Your task to perform on an android device: Open Google Chrome and open the bookmarks view Image 0: 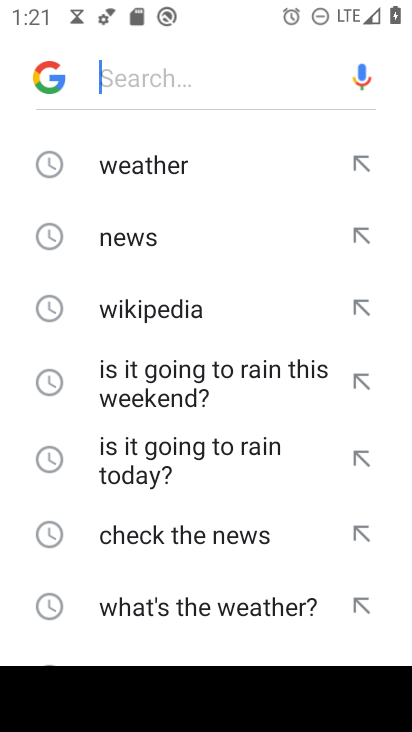
Step 0: press home button
Your task to perform on an android device: Open Google Chrome and open the bookmarks view Image 1: 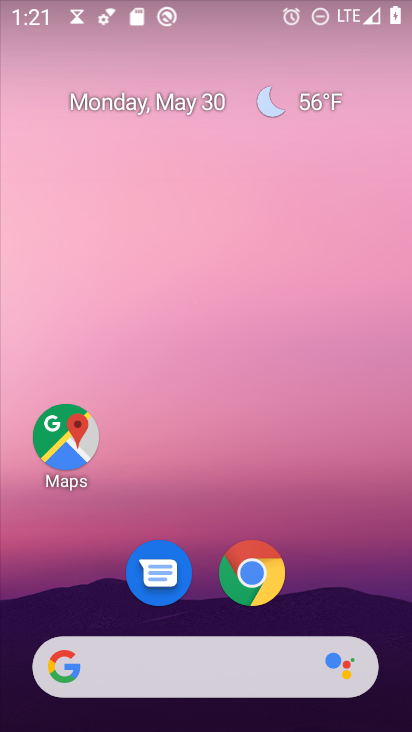
Step 1: drag from (333, 631) to (366, 0)
Your task to perform on an android device: Open Google Chrome and open the bookmarks view Image 2: 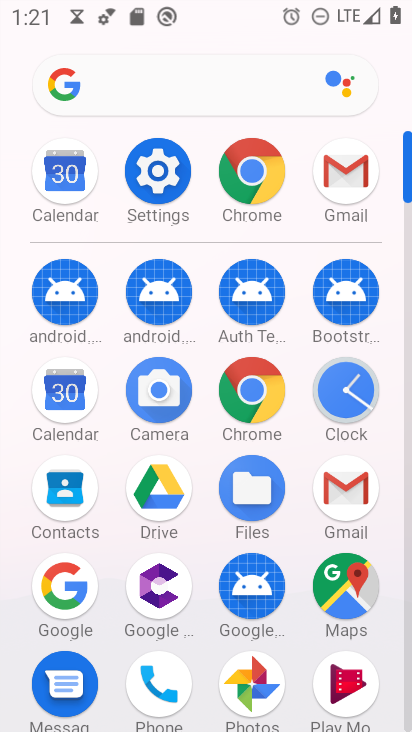
Step 2: click (244, 386)
Your task to perform on an android device: Open Google Chrome and open the bookmarks view Image 3: 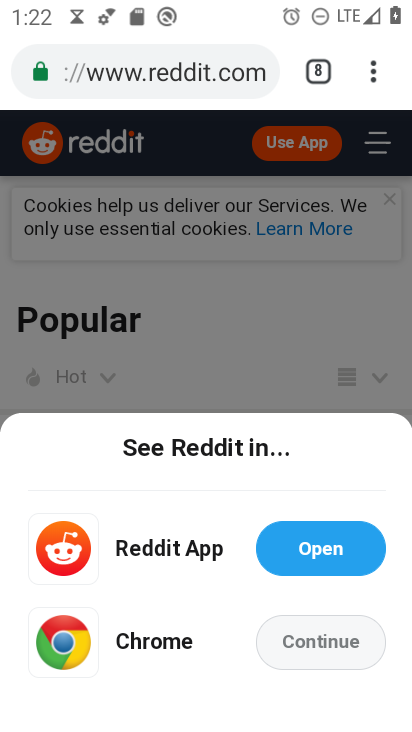
Step 3: task complete